Your task to perform on an android device: Play the last video I watched on Youtube Image 0: 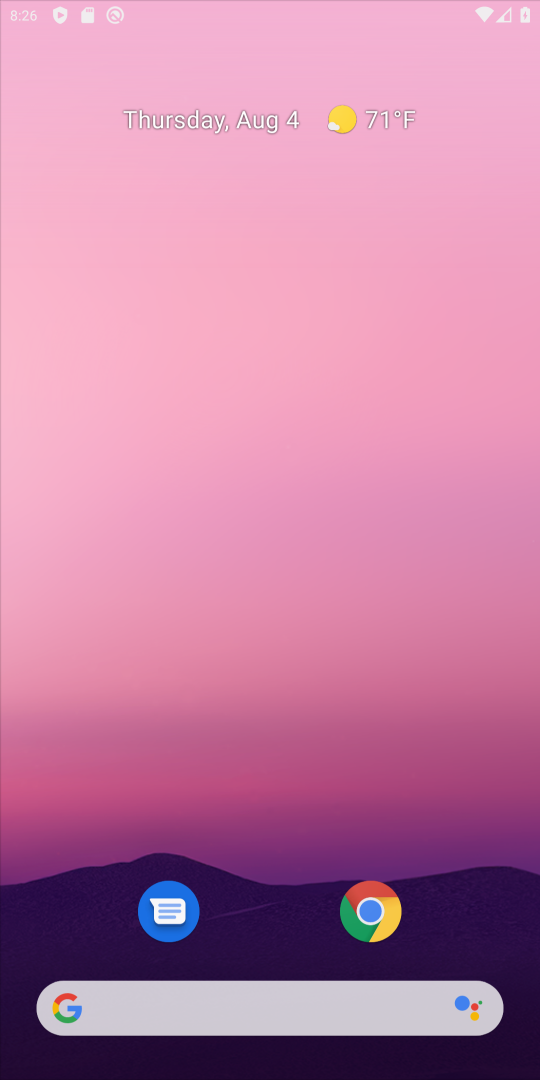
Step 0: drag from (189, 4) to (450, 67)
Your task to perform on an android device: Play the last video I watched on Youtube Image 1: 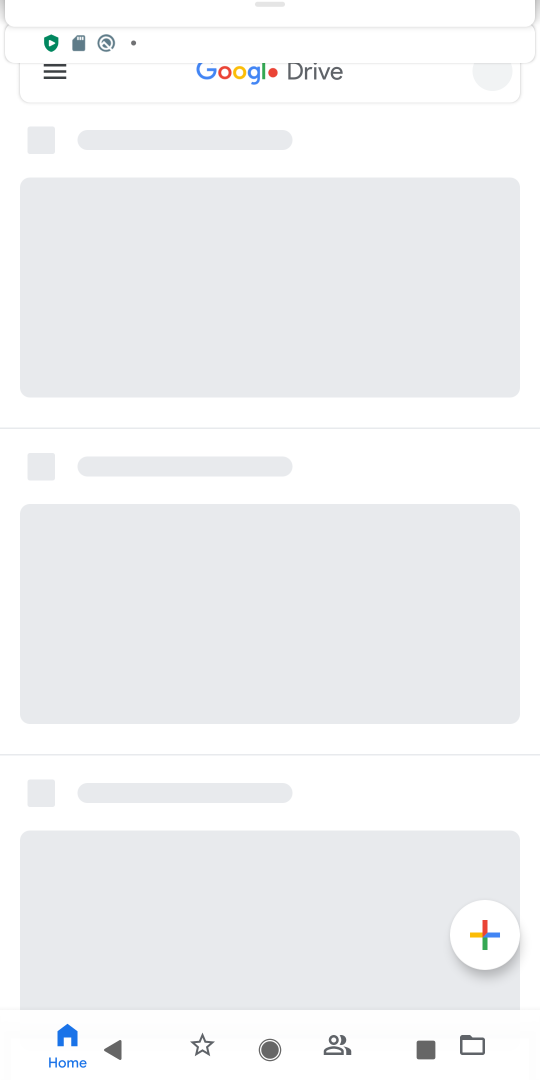
Step 1: click (370, 250)
Your task to perform on an android device: Play the last video I watched on Youtube Image 2: 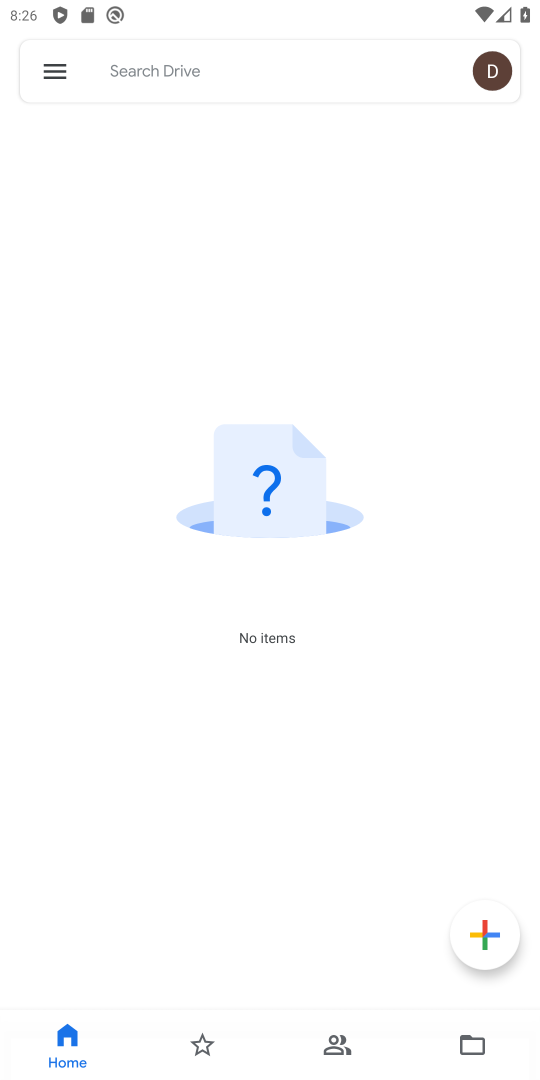
Step 2: drag from (274, 875) to (356, 444)
Your task to perform on an android device: Play the last video I watched on Youtube Image 3: 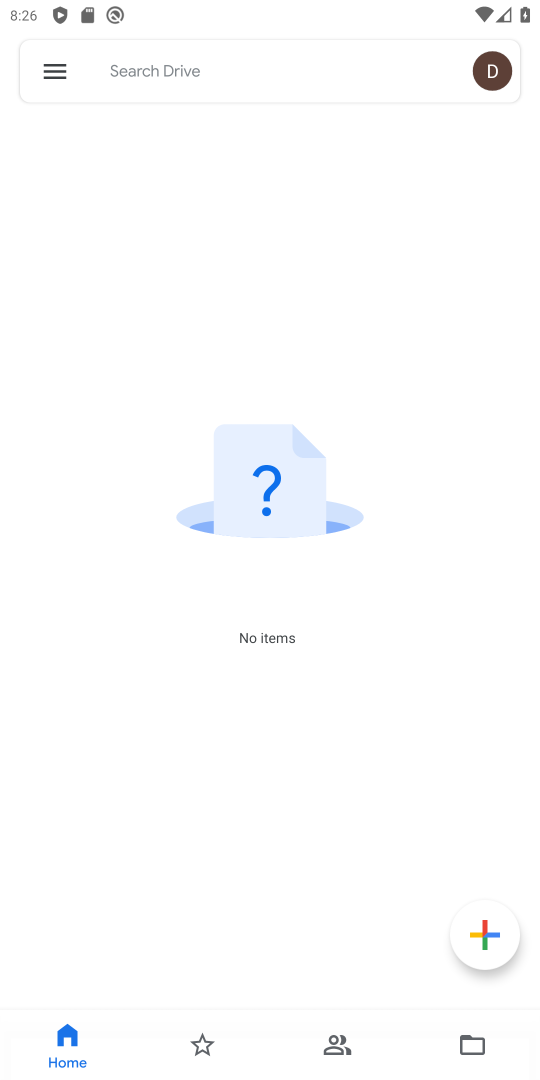
Step 3: press home button
Your task to perform on an android device: Play the last video I watched on Youtube Image 4: 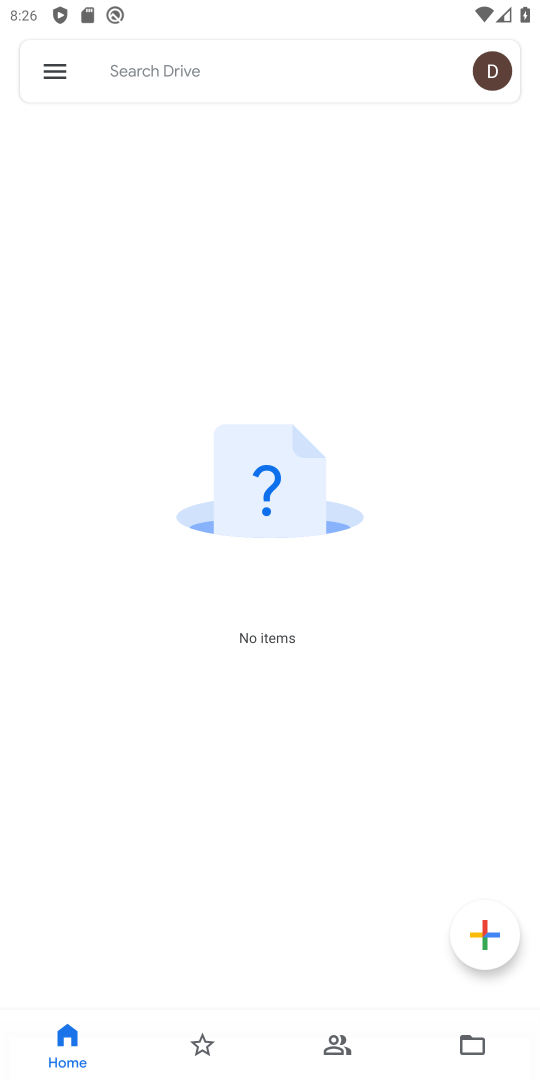
Step 4: press home button
Your task to perform on an android device: Play the last video I watched on Youtube Image 5: 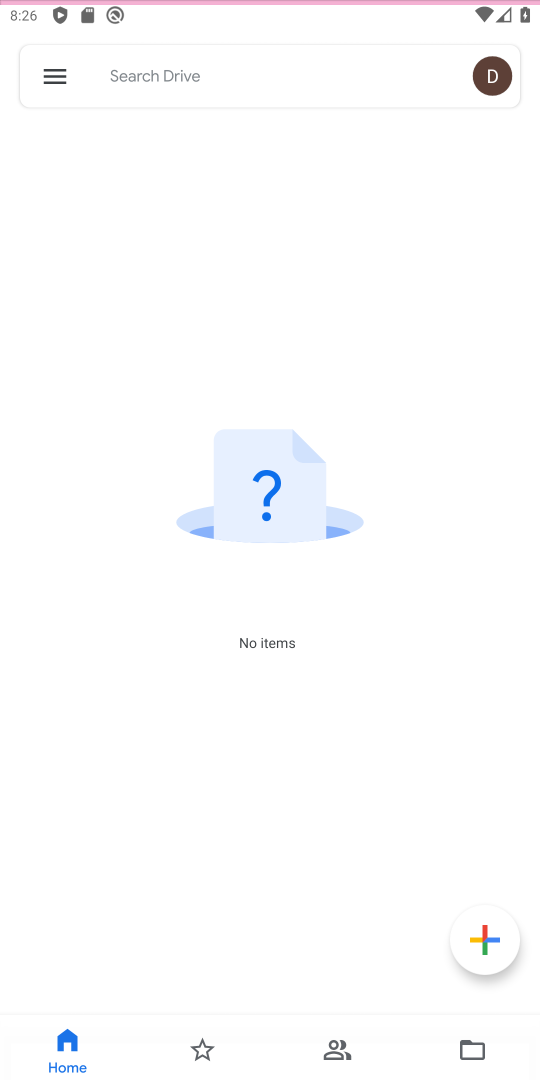
Step 5: click (292, 243)
Your task to perform on an android device: Play the last video I watched on Youtube Image 6: 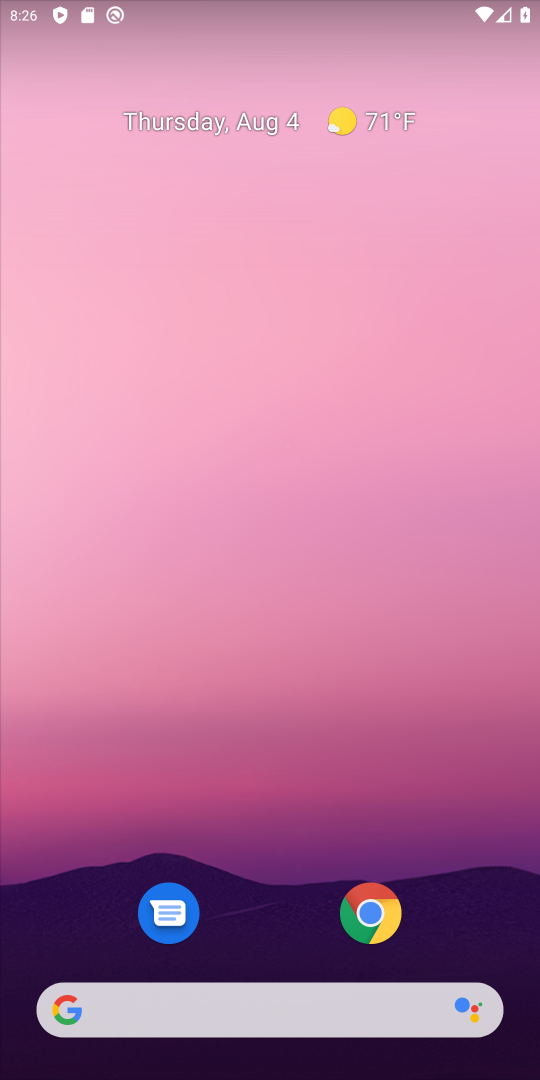
Step 6: drag from (296, 923) to (282, 372)
Your task to perform on an android device: Play the last video I watched on Youtube Image 7: 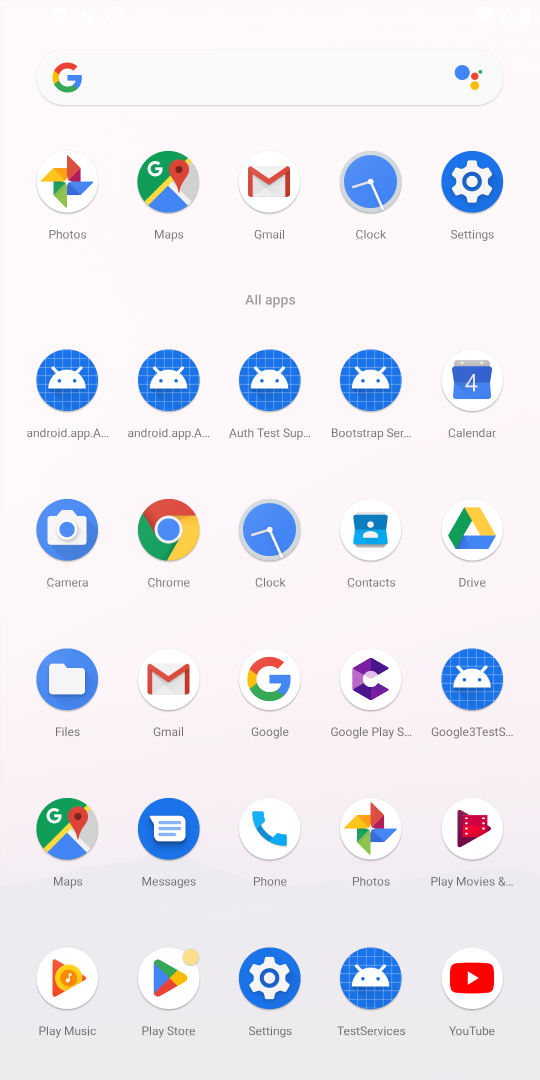
Step 7: drag from (266, 866) to (347, 366)
Your task to perform on an android device: Play the last video I watched on Youtube Image 8: 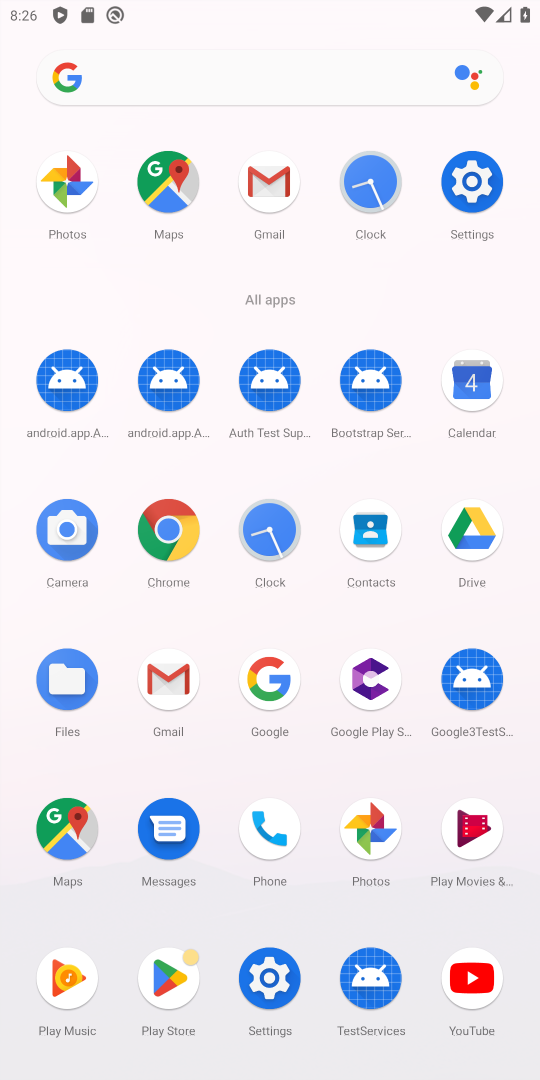
Step 8: click (465, 982)
Your task to perform on an android device: Play the last video I watched on Youtube Image 9: 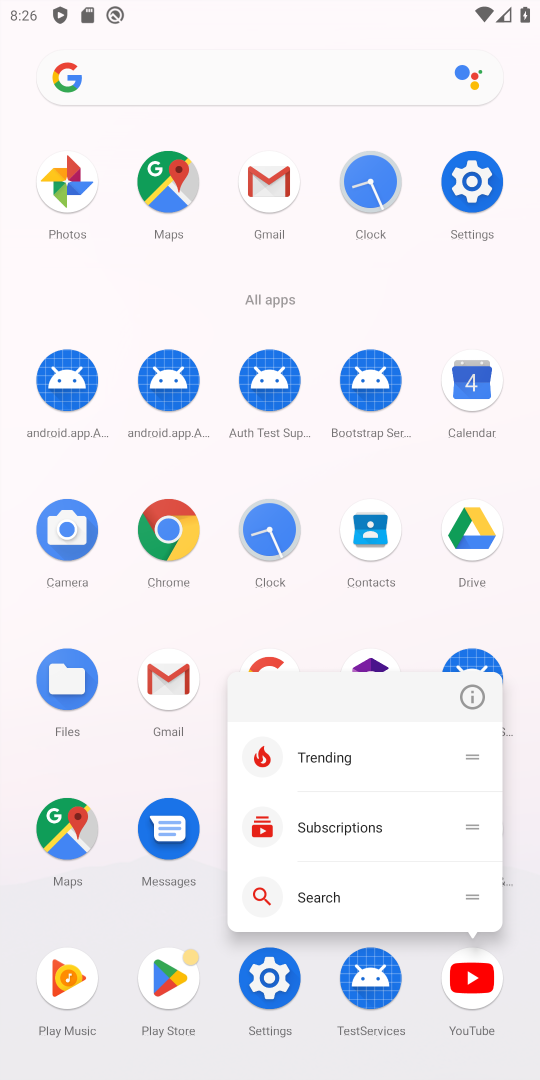
Step 9: click (458, 696)
Your task to perform on an android device: Play the last video I watched on Youtube Image 10: 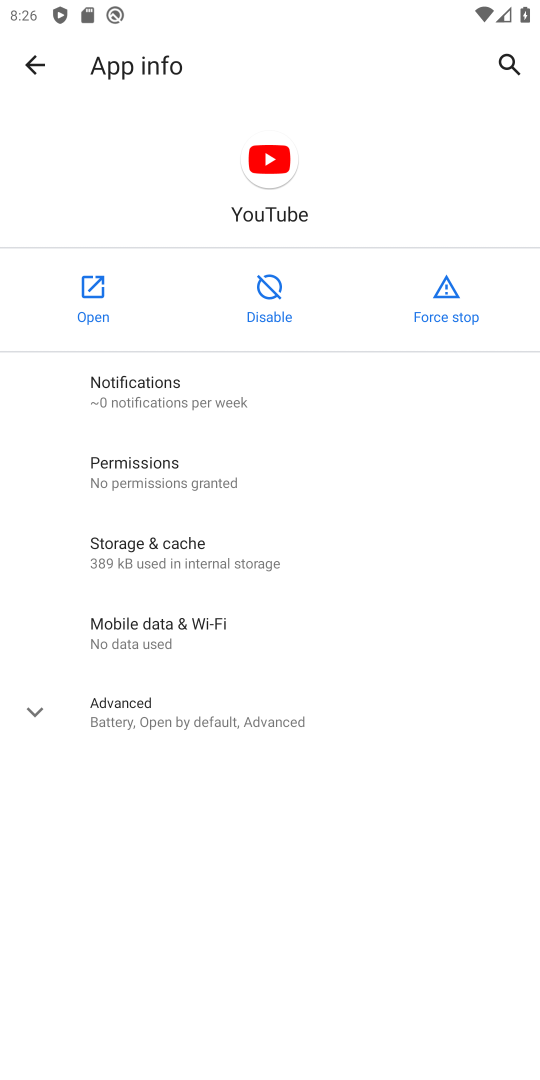
Step 10: click (80, 282)
Your task to perform on an android device: Play the last video I watched on Youtube Image 11: 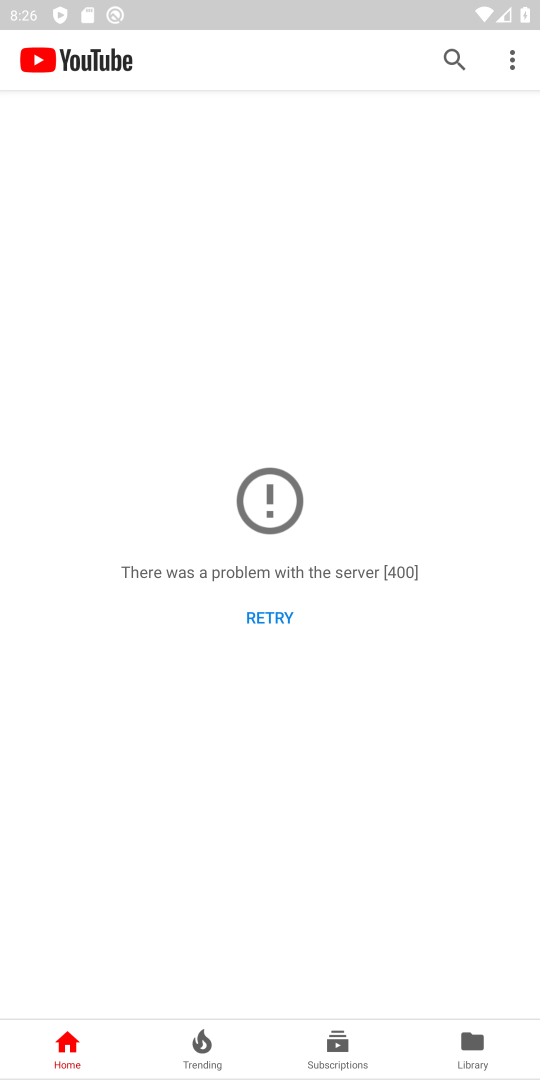
Step 11: drag from (291, 841) to (375, 437)
Your task to perform on an android device: Play the last video I watched on Youtube Image 12: 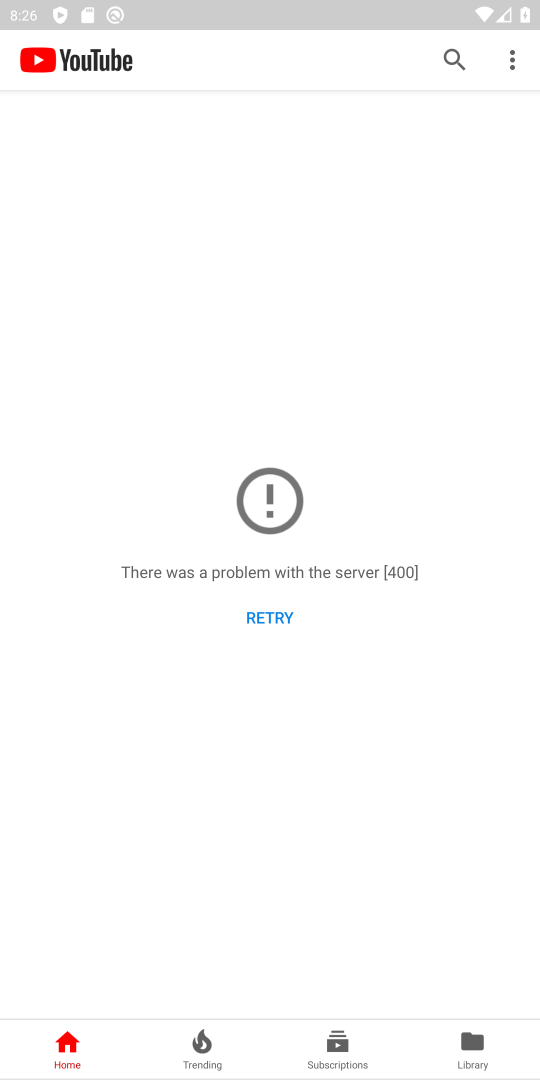
Step 12: click (463, 1045)
Your task to perform on an android device: Play the last video I watched on Youtube Image 13: 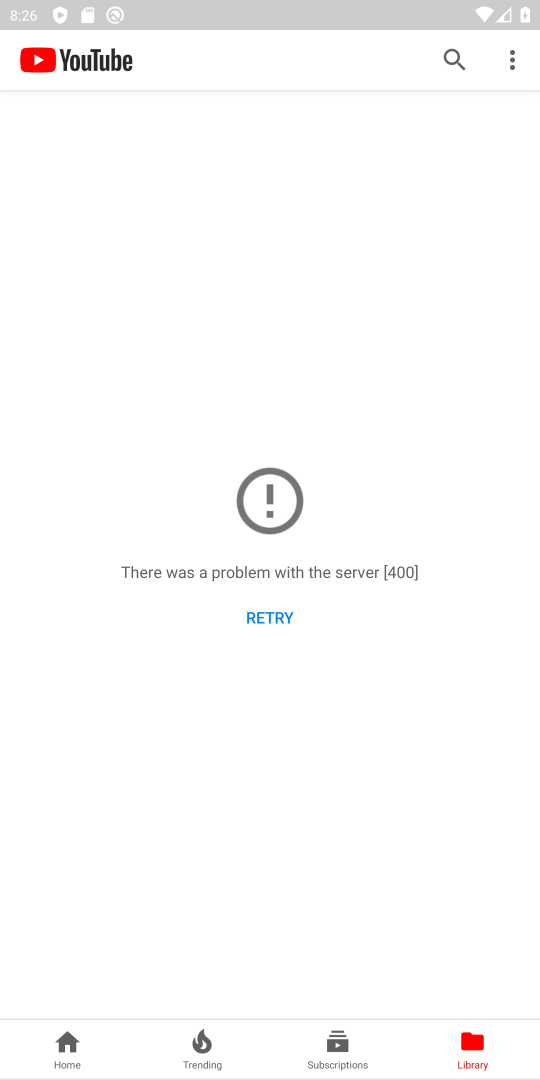
Step 13: click (477, 1051)
Your task to perform on an android device: Play the last video I watched on Youtube Image 14: 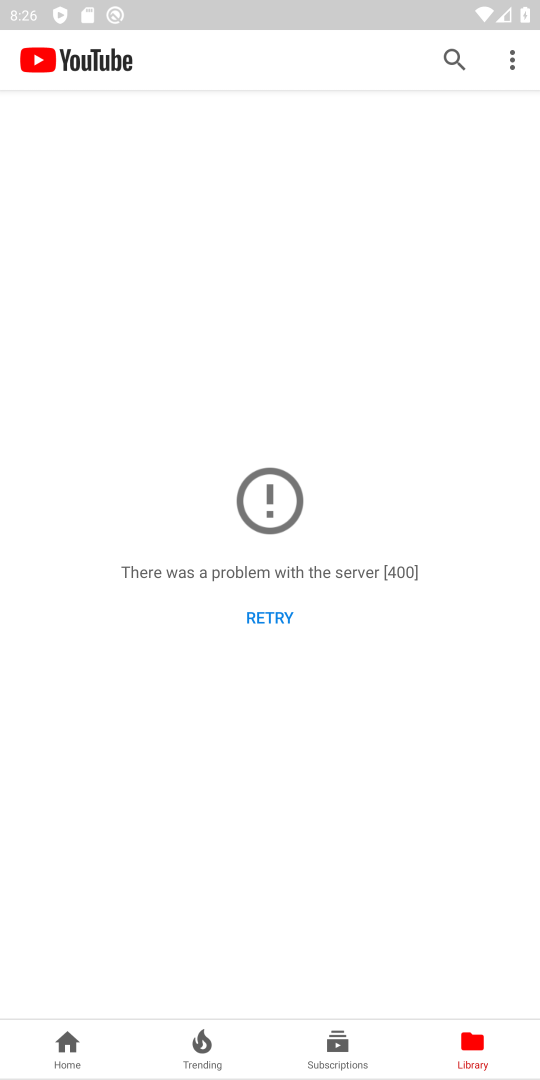
Step 14: task complete